Your task to perform on an android device: clear history in the chrome app Image 0: 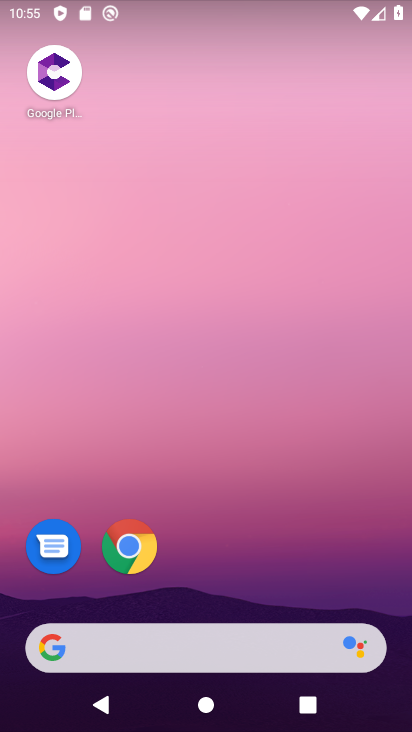
Step 0: click (128, 545)
Your task to perform on an android device: clear history in the chrome app Image 1: 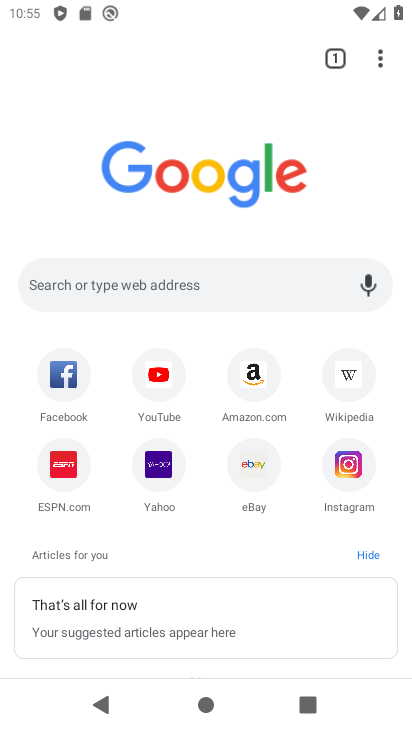
Step 1: click (385, 57)
Your task to perform on an android device: clear history in the chrome app Image 2: 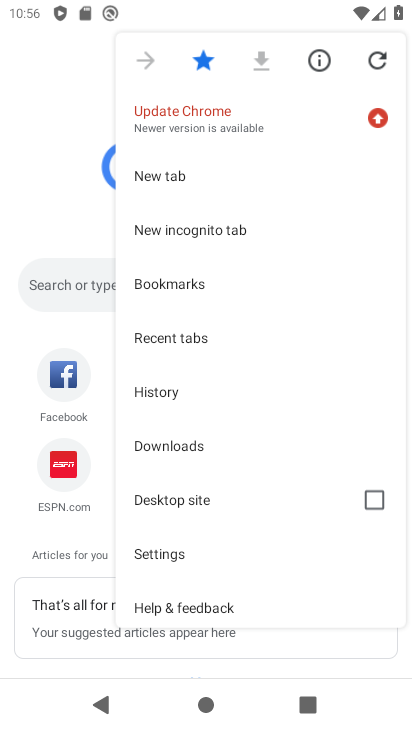
Step 2: click (172, 394)
Your task to perform on an android device: clear history in the chrome app Image 3: 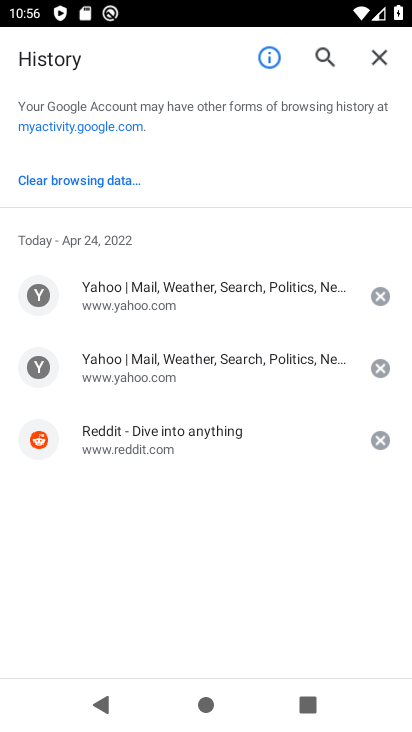
Step 3: click (120, 178)
Your task to perform on an android device: clear history in the chrome app Image 4: 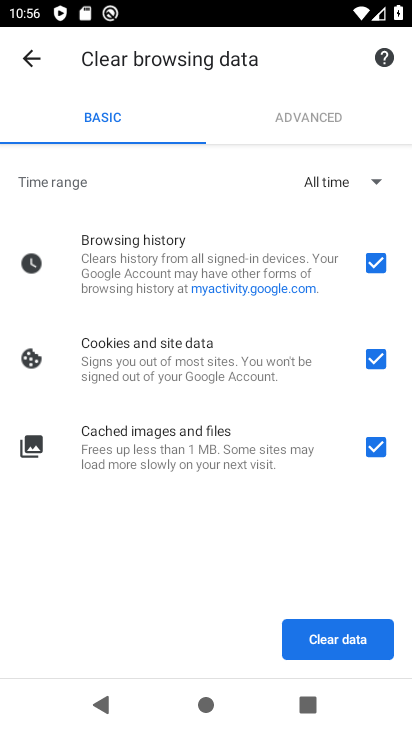
Step 4: click (358, 642)
Your task to perform on an android device: clear history in the chrome app Image 5: 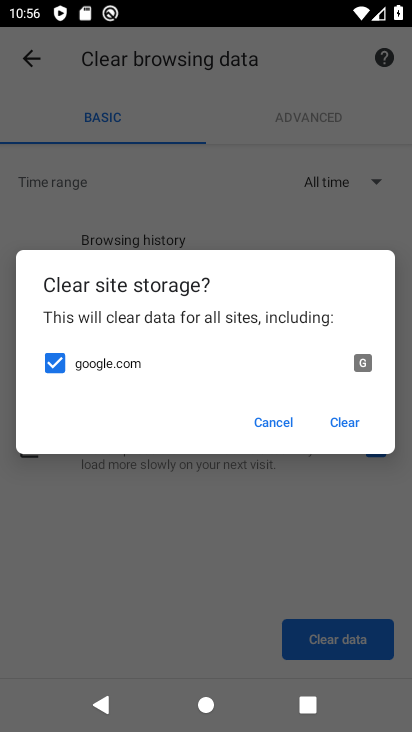
Step 5: click (342, 413)
Your task to perform on an android device: clear history in the chrome app Image 6: 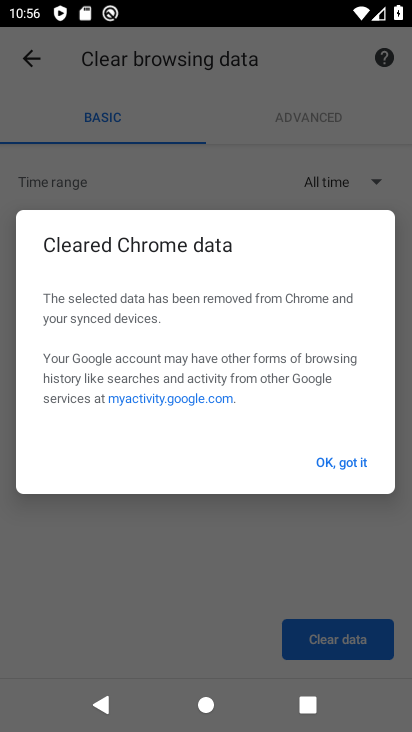
Step 6: click (347, 461)
Your task to perform on an android device: clear history in the chrome app Image 7: 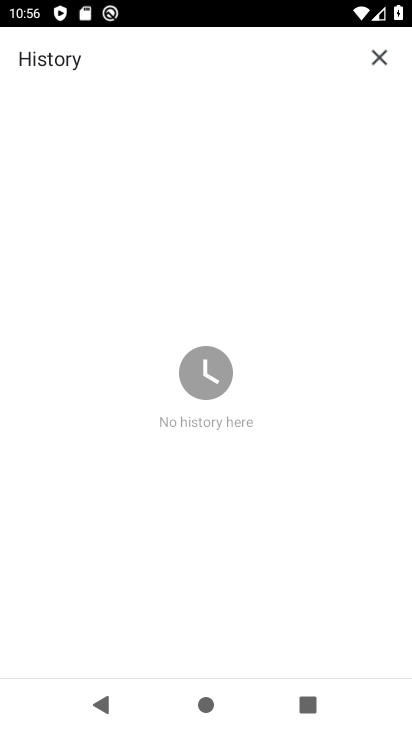
Step 7: task complete